Your task to perform on an android device: View the shopping cart on amazon.com. Search for alienware area 51 on amazon.com, select the first entry, add it to the cart, then select checkout. Image 0: 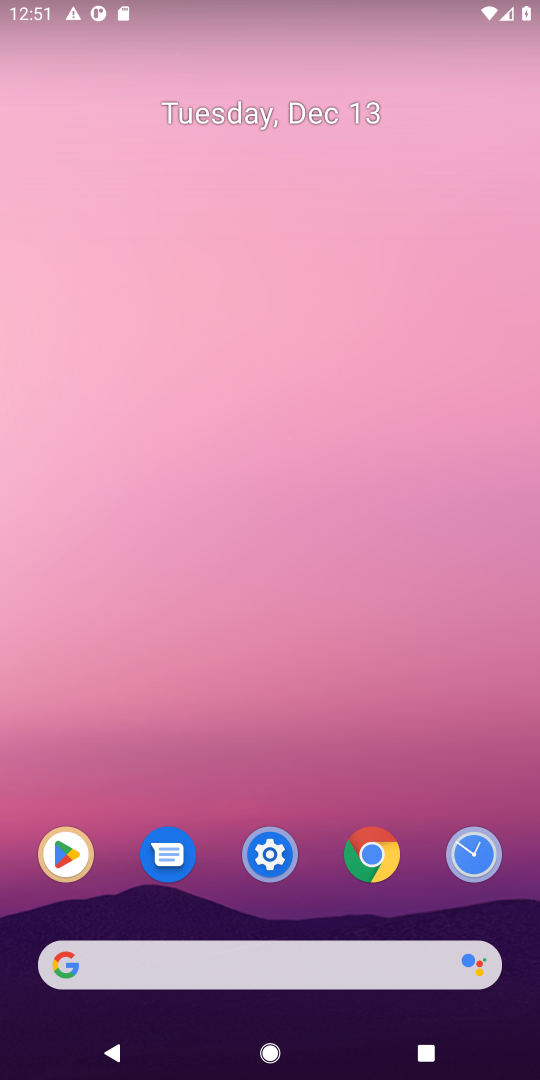
Step 0: click (269, 978)
Your task to perform on an android device: View the shopping cart on amazon.com. Search for alienware area 51 on amazon.com, select the first entry, add it to the cart, then select checkout. Image 1: 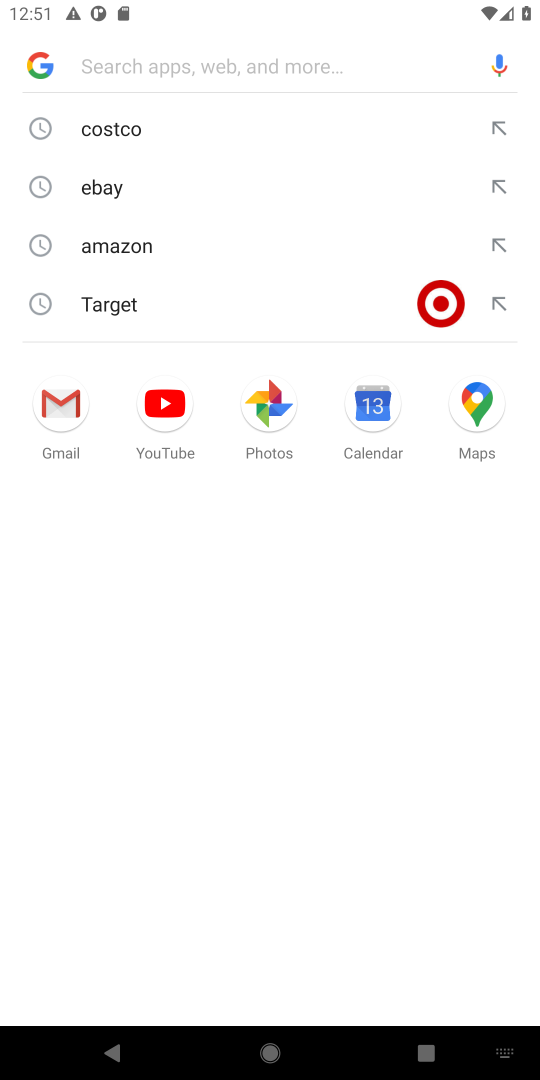
Step 1: click (107, 250)
Your task to perform on an android device: View the shopping cart on amazon.com. Search for alienware area 51 on amazon.com, select the first entry, add it to the cart, then select checkout. Image 2: 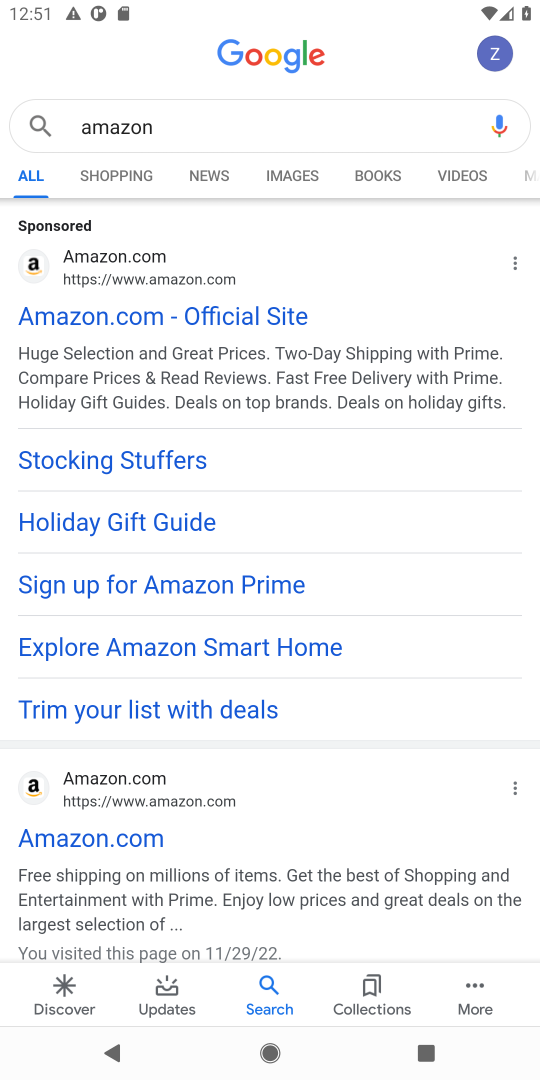
Step 2: click (92, 331)
Your task to perform on an android device: View the shopping cart on amazon.com. Search for alienware area 51 on amazon.com, select the first entry, add it to the cart, then select checkout. Image 3: 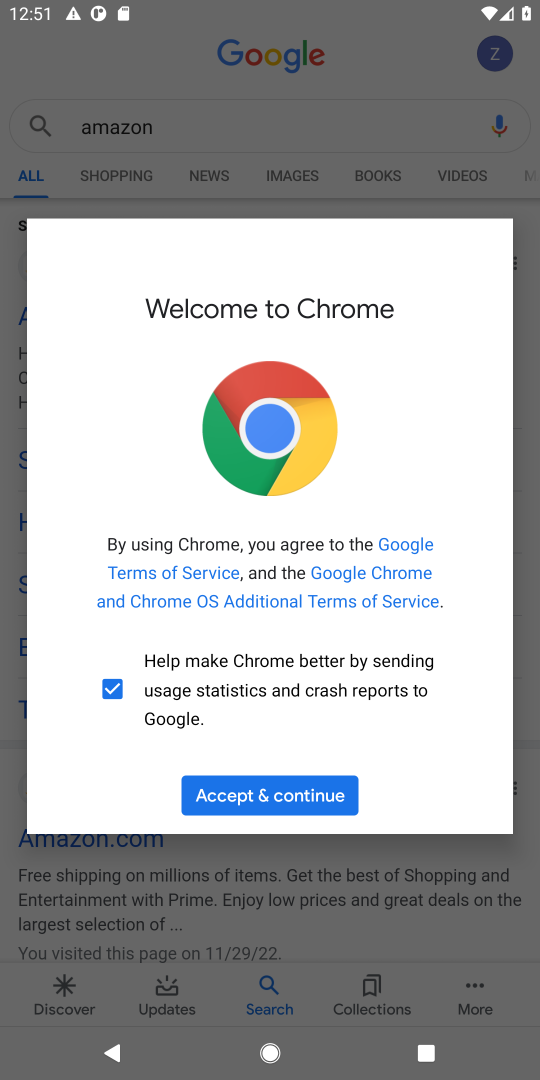
Step 3: click (217, 804)
Your task to perform on an android device: View the shopping cart on amazon.com. Search for alienware area 51 on amazon.com, select the first entry, add it to the cart, then select checkout. Image 4: 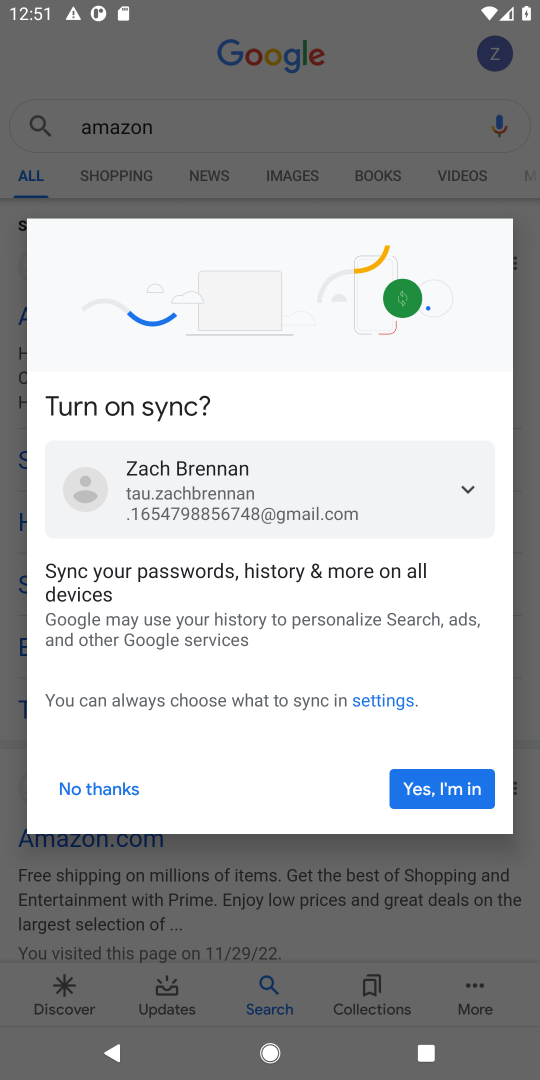
Step 4: click (64, 793)
Your task to perform on an android device: View the shopping cart on amazon.com. Search for alienware area 51 on amazon.com, select the first entry, add it to the cart, then select checkout. Image 5: 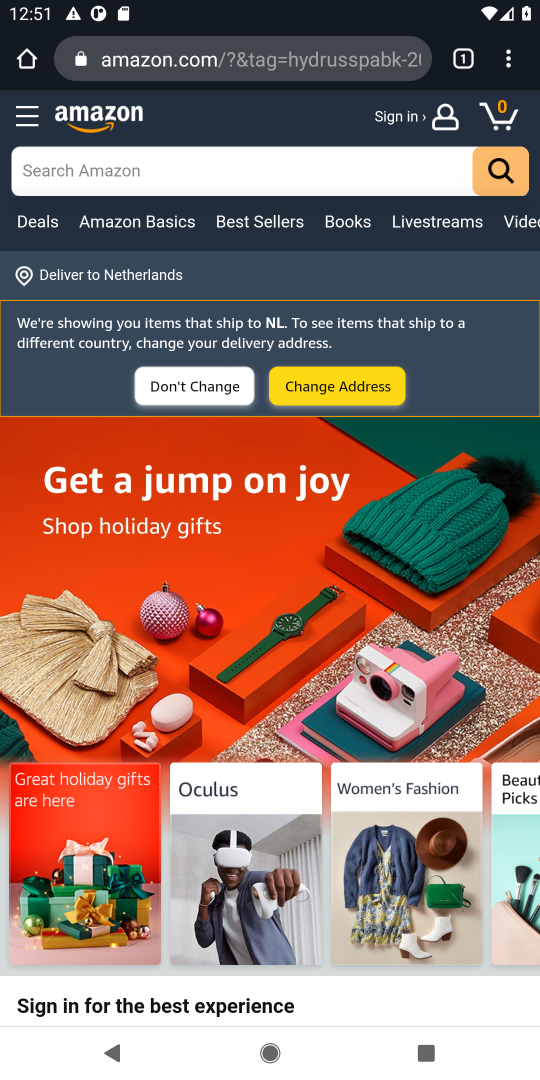
Step 5: click (267, 160)
Your task to perform on an android device: View the shopping cart on amazon.com. Search for alienware area 51 on amazon.com, select the first entry, add it to the cart, then select checkout. Image 6: 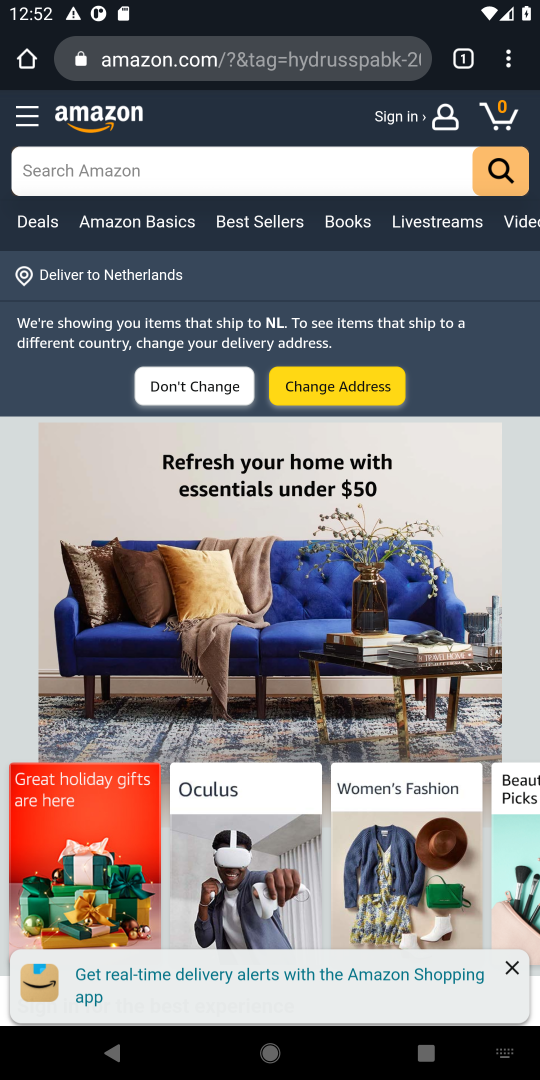
Step 6: click (267, 160)
Your task to perform on an android device: View the shopping cart on amazon.com. Search for alienware area 51 on amazon.com, select the first entry, add it to the cart, then select checkout. Image 7: 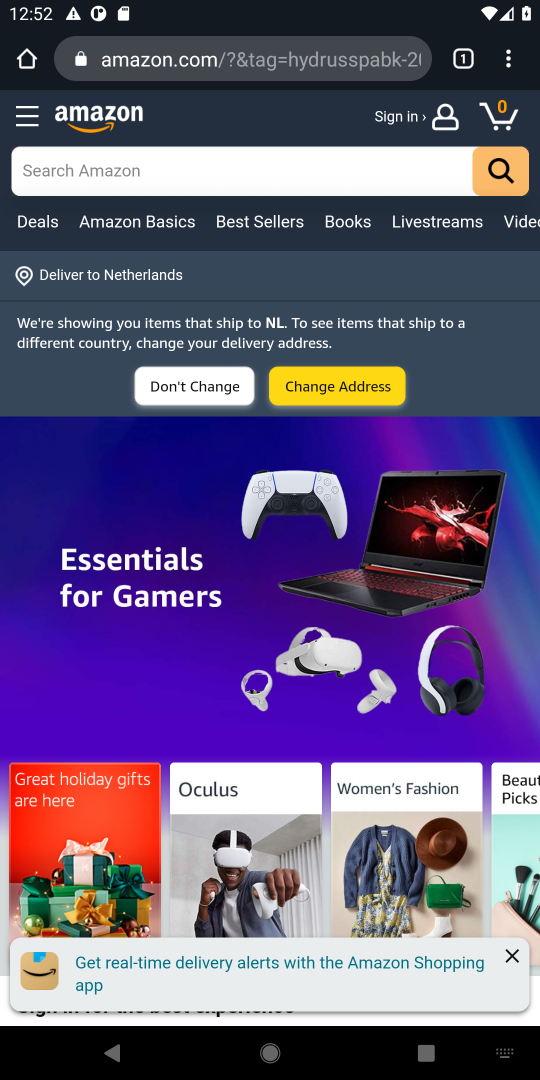
Step 7: type "alienware area 51"
Your task to perform on an android device: View the shopping cart on amazon.com. Search for alienware area 51 on amazon.com, select the first entry, add it to the cart, then select checkout. Image 8: 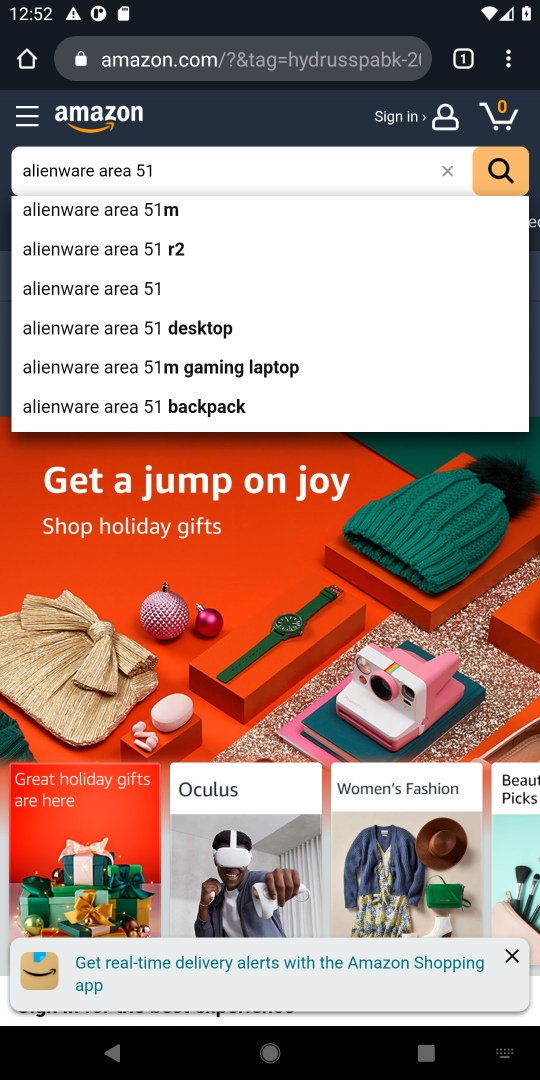
Step 8: click (493, 184)
Your task to perform on an android device: View the shopping cart on amazon.com. Search for alienware area 51 on amazon.com, select the first entry, add it to the cart, then select checkout. Image 9: 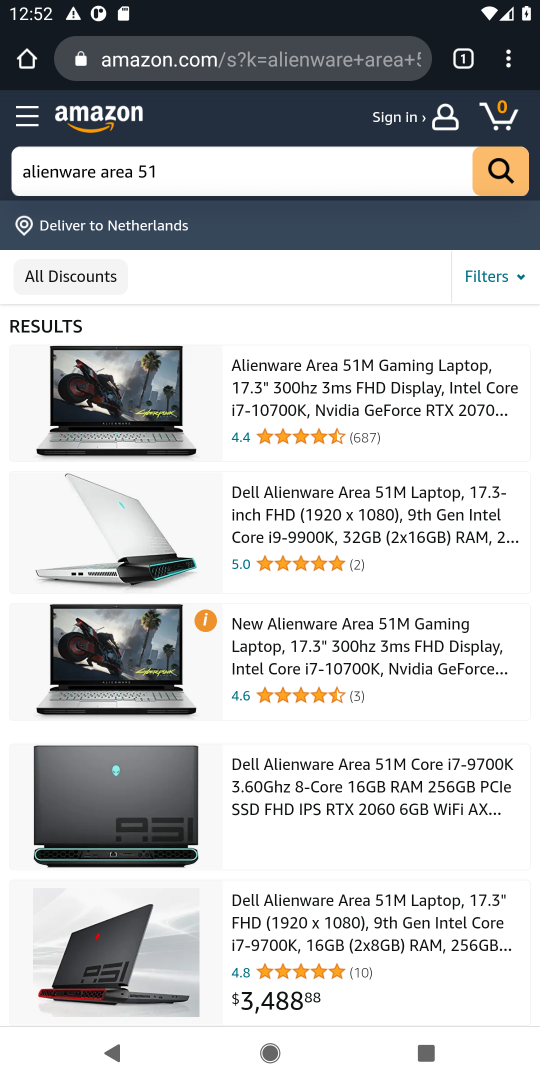
Step 9: click (349, 416)
Your task to perform on an android device: View the shopping cart on amazon.com. Search for alienware area 51 on amazon.com, select the first entry, add it to the cart, then select checkout. Image 10: 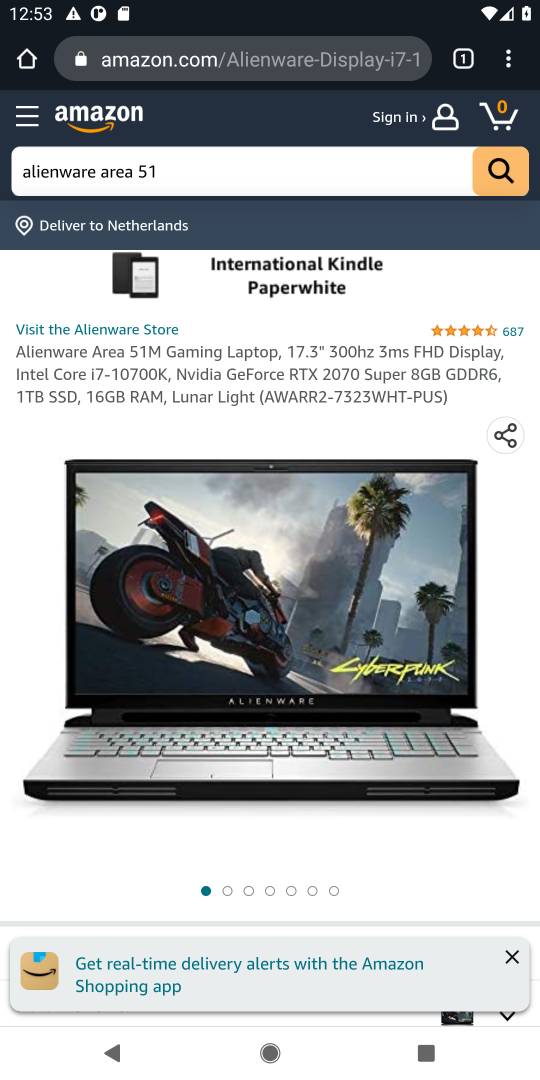
Step 10: click (508, 956)
Your task to perform on an android device: View the shopping cart on amazon.com. Search for alienware area 51 on amazon.com, select the first entry, add it to the cart, then select checkout. Image 11: 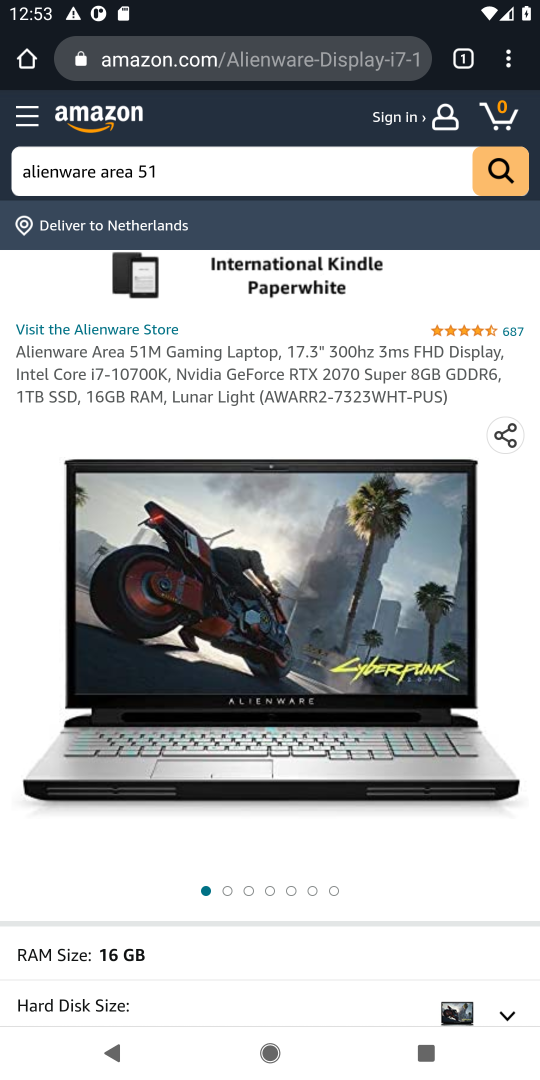
Step 11: drag from (402, 855) to (386, 481)
Your task to perform on an android device: View the shopping cart on amazon.com. Search for alienware area 51 on amazon.com, select the first entry, add it to the cart, then select checkout. Image 12: 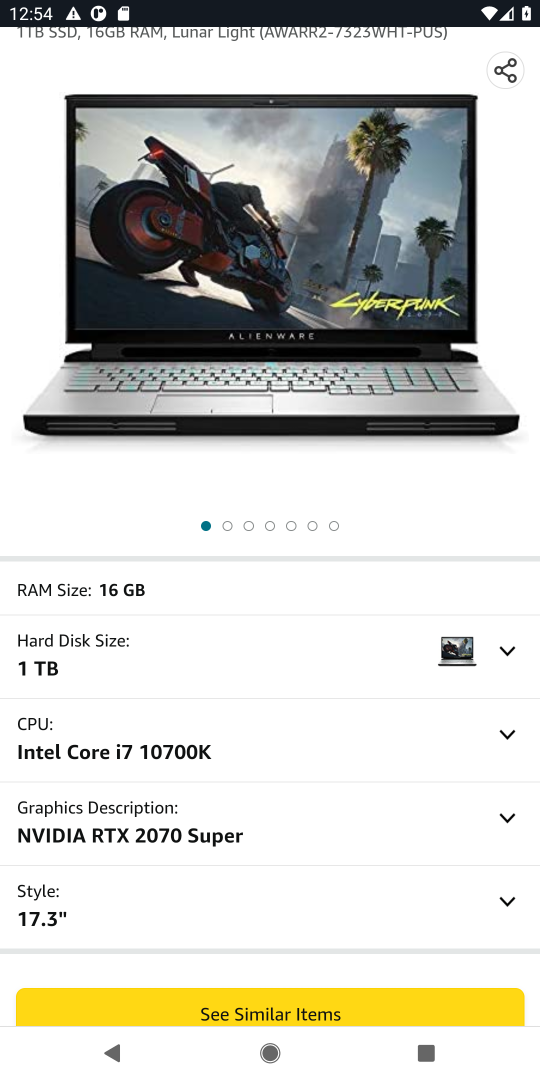
Step 12: drag from (351, 894) to (333, 156)
Your task to perform on an android device: View the shopping cart on amazon.com. Search for alienware area 51 on amazon.com, select the first entry, add it to the cart, then select checkout. Image 13: 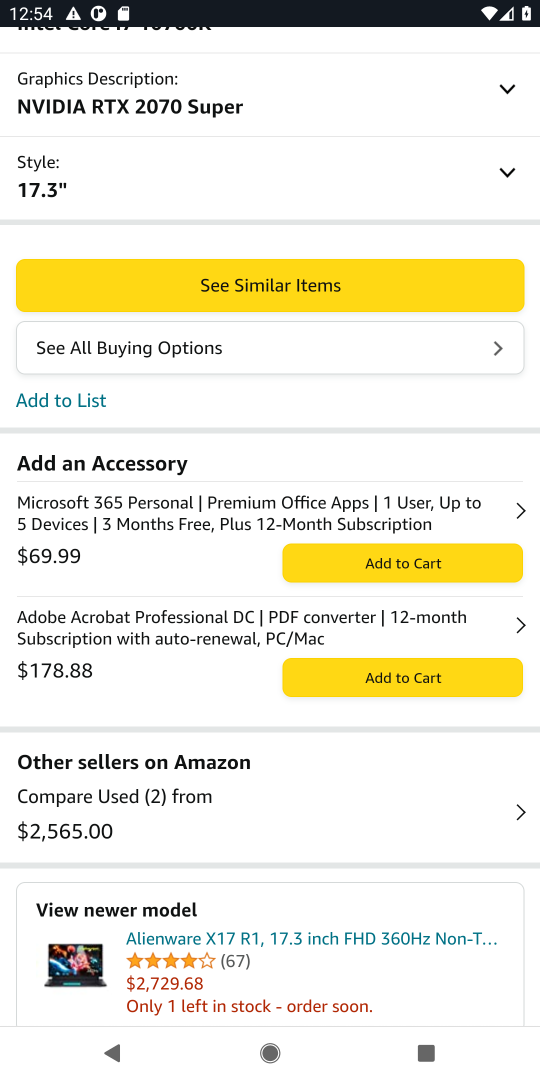
Step 13: click (444, 688)
Your task to perform on an android device: View the shopping cart on amazon.com. Search for alienware area 51 on amazon.com, select the first entry, add it to the cart, then select checkout. Image 14: 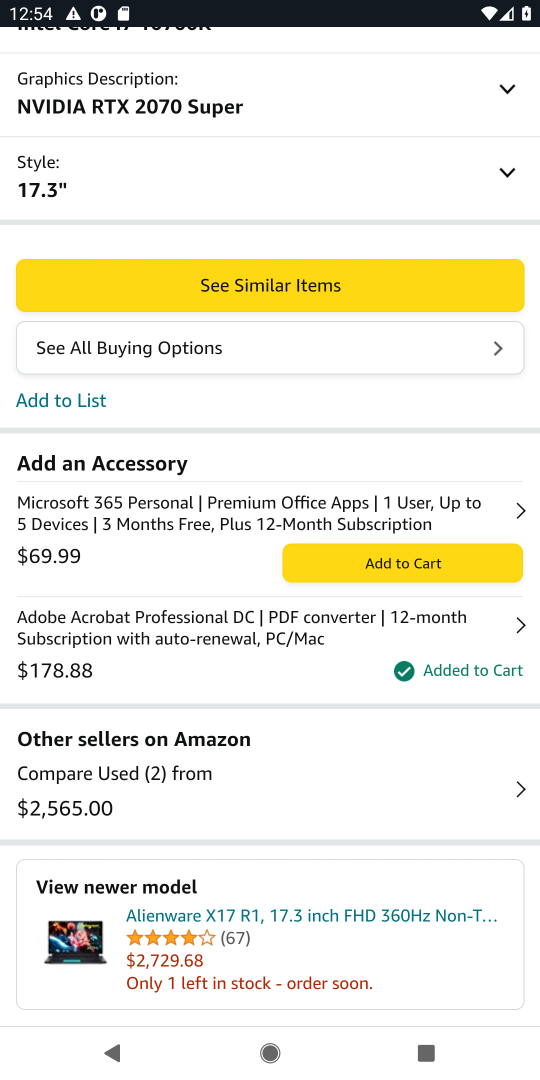
Step 14: click (429, 567)
Your task to perform on an android device: View the shopping cart on amazon.com. Search for alienware area 51 on amazon.com, select the first entry, add it to the cart, then select checkout. Image 15: 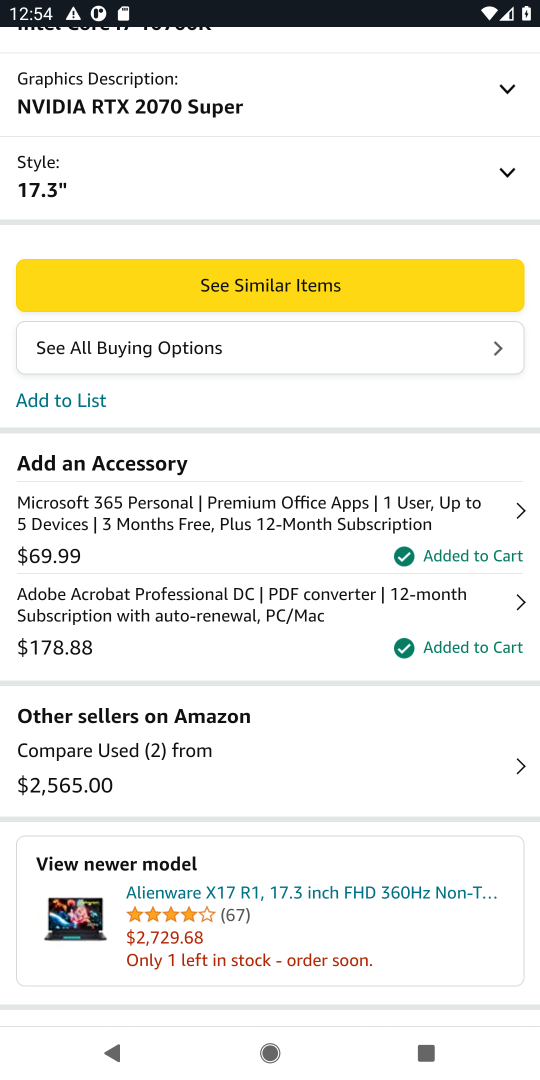
Step 15: task complete